Your task to perform on an android device: open app "TextNow: Call + Text Unlimited" Image 0: 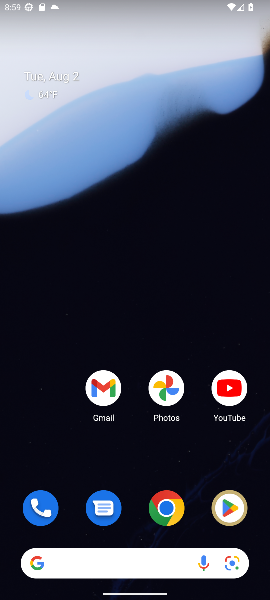
Step 0: drag from (118, 507) to (157, 187)
Your task to perform on an android device: open app "TextNow: Call + Text Unlimited" Image 1: 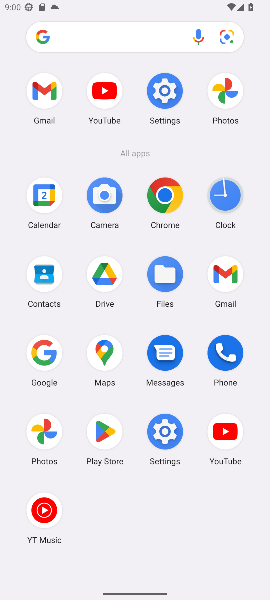
Step 1: click (117, 433)
Your task to perform on an android device: open app "TextNow: Call + Text Unlimited" Image 2: 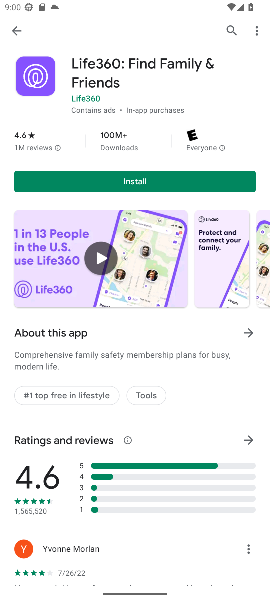
Step 2: click (14, 32)
Your task to perform on an android device: open app "TextNow: Call + Text Unlimited" Image 3: 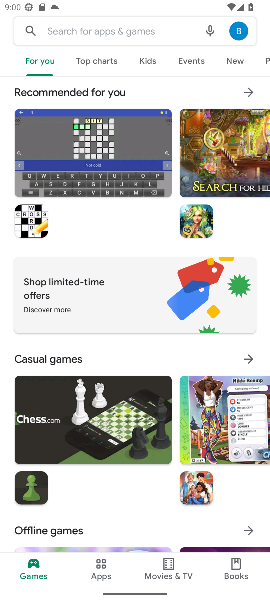
Step 3: click (104, 31)
Your task to perform on an android device: open app "TextNow: Call + Text Unlimited" Image 4: 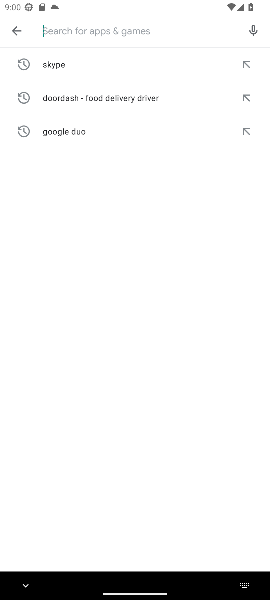
Step 4: type "textNow: Call + Text Unlimited"
Your task to perform on an android device: open app "TextNow: Call + Text Unlimited" Image 5: 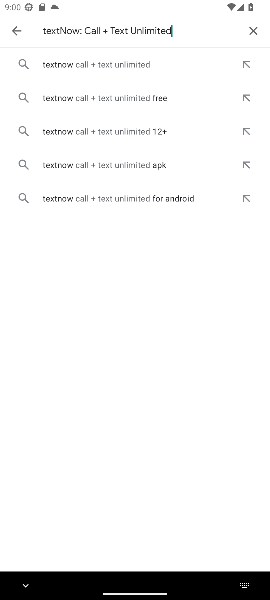
Step 5: click (85, 64)
Your task to perform on an android device: open app "TextNow: Call + Text Unlimited" Image 6: 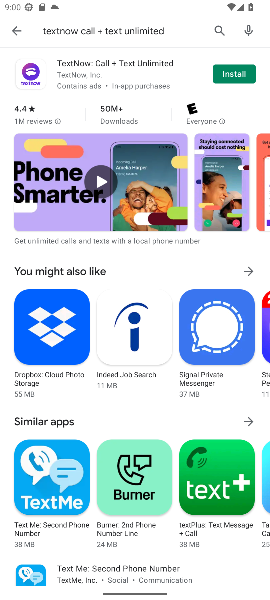
Step 6: click (246, 73)
Your task to perform on an android device: open app "TextNow: Call + Text Unlimited" Image 7: 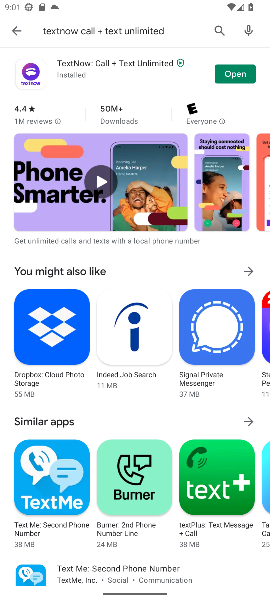
Step 7: click (243, 79)
Your task to perform on an android device: open app "TextNow: Call + Text Unlimited" Image 8: 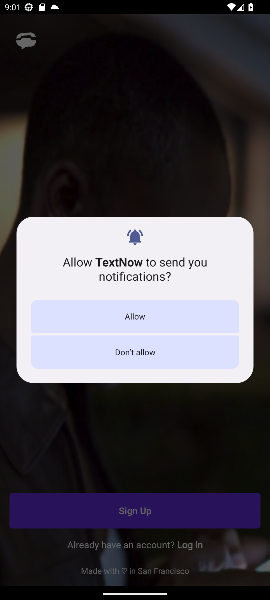
Step 8: click (144, 312)
Your task to perform on an android device: open app "TextNow: Call + Text Unlimited" Image 9: 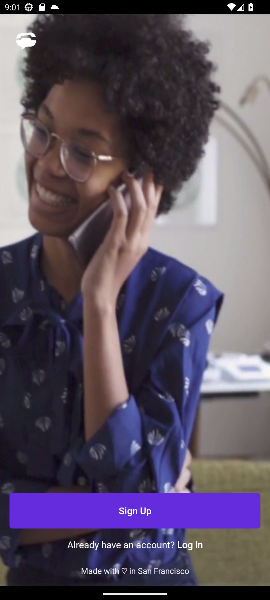
Step 9: task complete